Your task to perform on an android device: Open Google Maps Image 0: 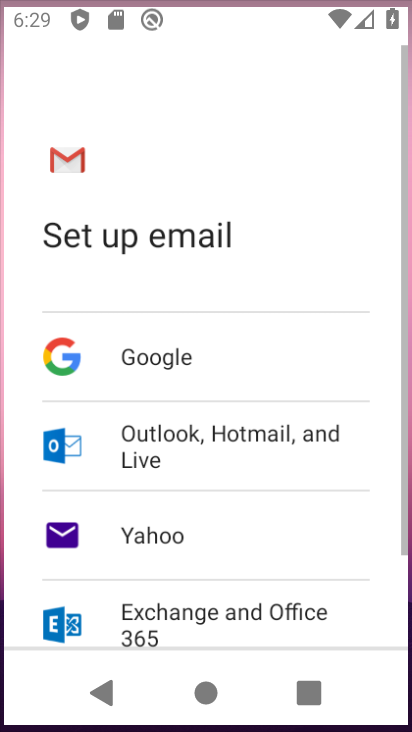
Step 0: drag from (350, 507) to (242, 73)
Your task to perform on an android device: Open Google Maps Image 1: 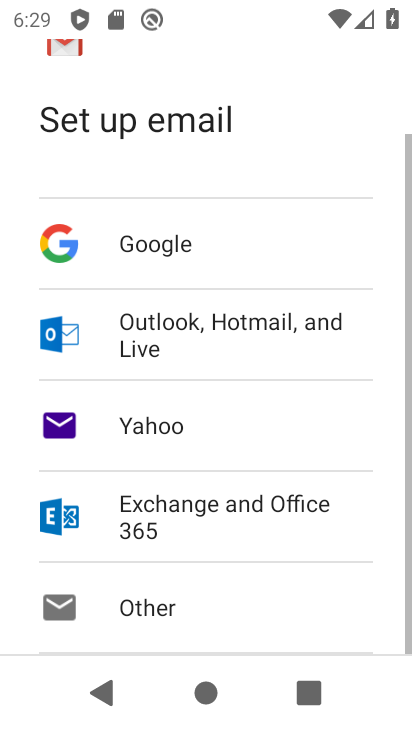
Step 1: press home button
Your task to perform on an android device: Open Google Maps Image 2: 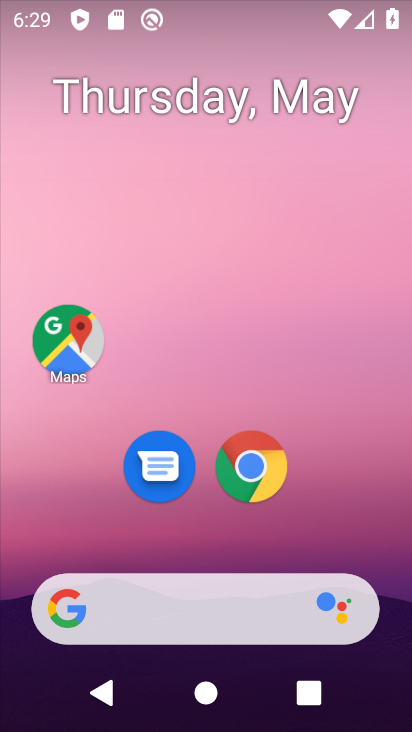
Step 2: click (69, 339)
Your task to perform on an android device: Open Google Maps Image 3: 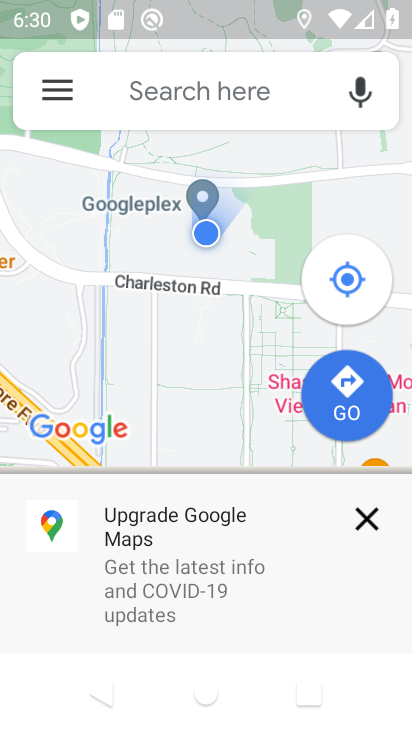
Step 3: task complete